Your task to perform on an android device: toggle priority inbox in the gmail app Image 0: 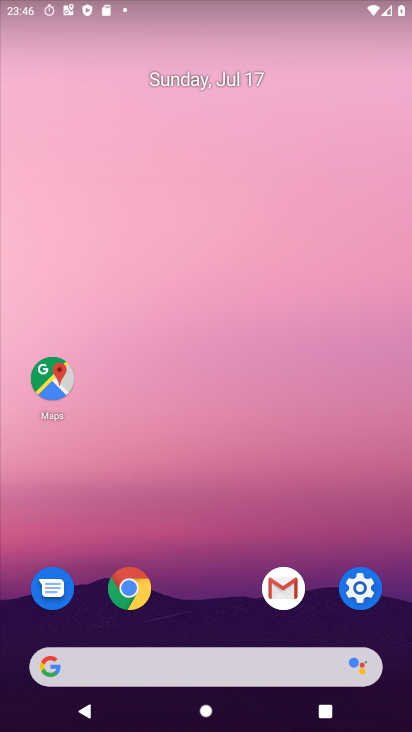
Step 0: click (291, 602)
Your task to perform on an android device: toggle priority inbox in the gmail app Image 1: 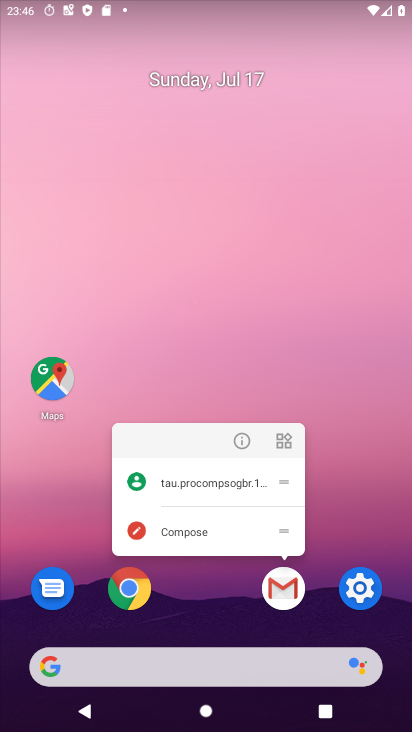
Step 1: click (274, 588)
Your task to perform on an android device: toggle priority inbox in the gmail app Image 2: 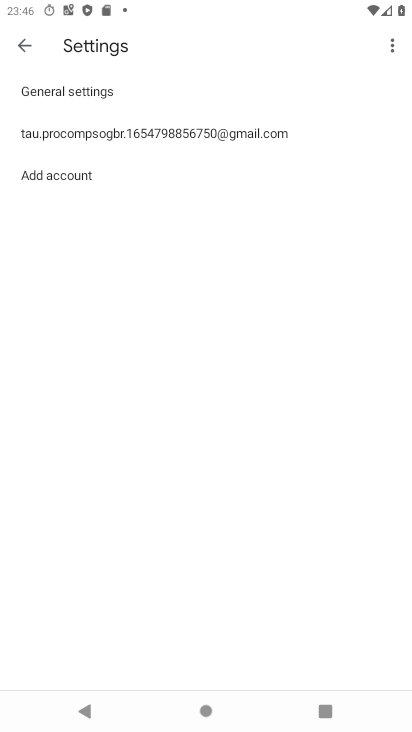
Step 2: click (101, 128)
Your task to perform on an android device: toggle priority inbox in the gmail app Image 3: 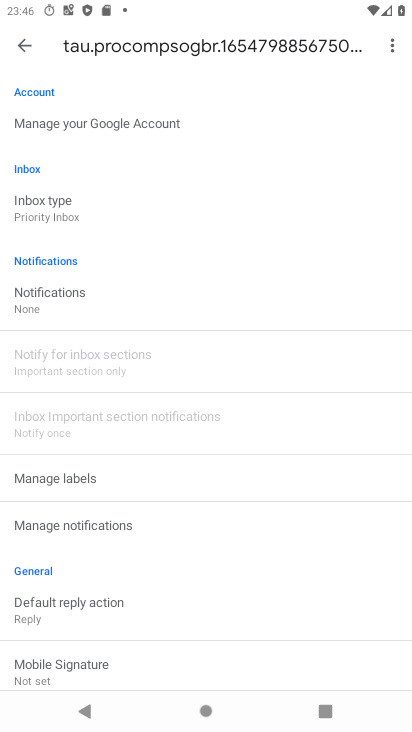
Step 3: click (47, 209)
Your task to perform on an android device: toggle priority inbox in the gmail app Image 4: 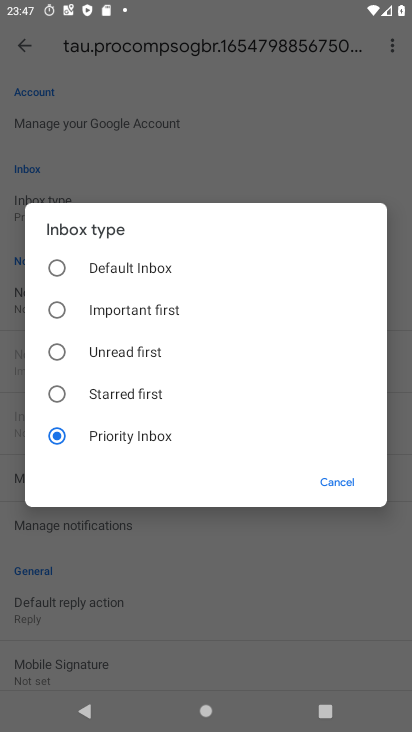
Step 4: task complete